Your task to perform on an android device: find snoozed emails in the gmail app Image 0: 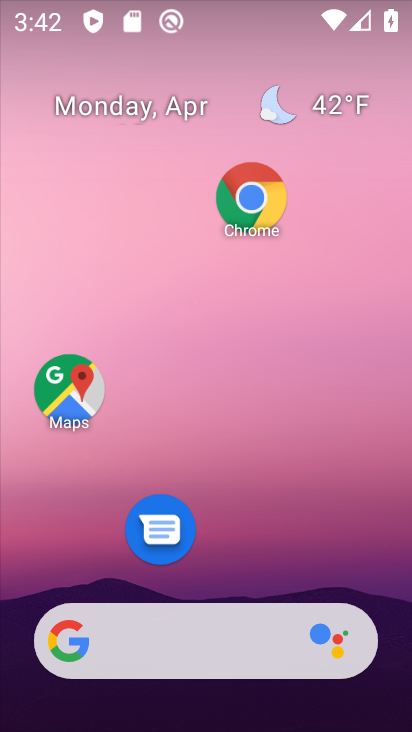
Step 0: drag from (232, 530) to (195, 220)
Your task to perform on an android device: find snoozed emails in the gmail app Image 1: 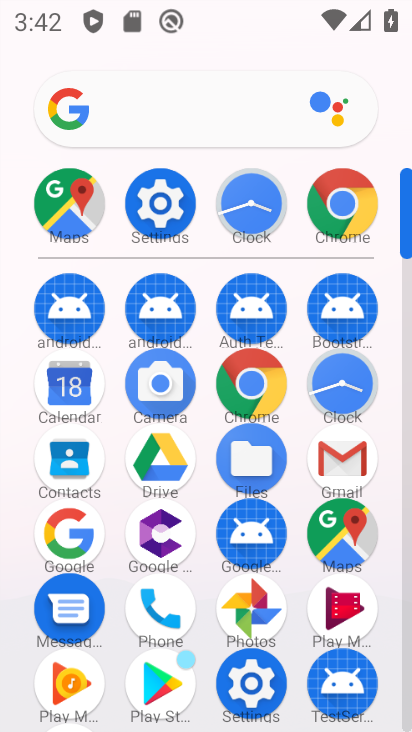
Step 1: click (331, 453)
Your task to perform on an android device: find snoozed emails in the gmail app Image 2: 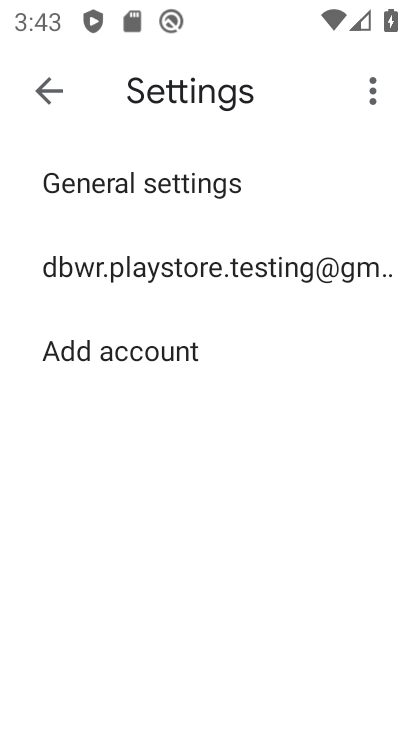
Step 2: click (37, 90)
Your task to perform on an android device: find snoozed emails in the gmail app Image 3: 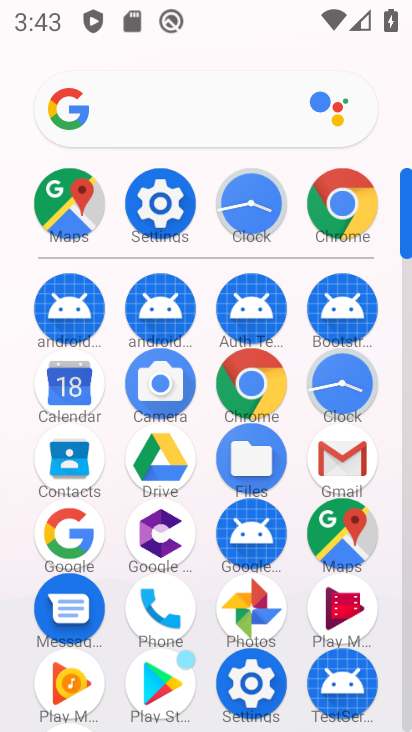
Step 3: click (321, 454)
Your task to perform on an android device: find snoozed emails in the gmail app Image 4: 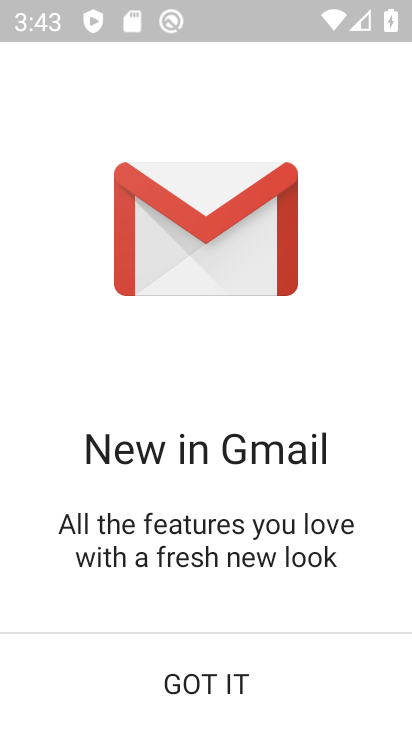
Step 4: click (235, 673)
Your task to perform on an android device: find snoozed emails in the gmail app Image 5: 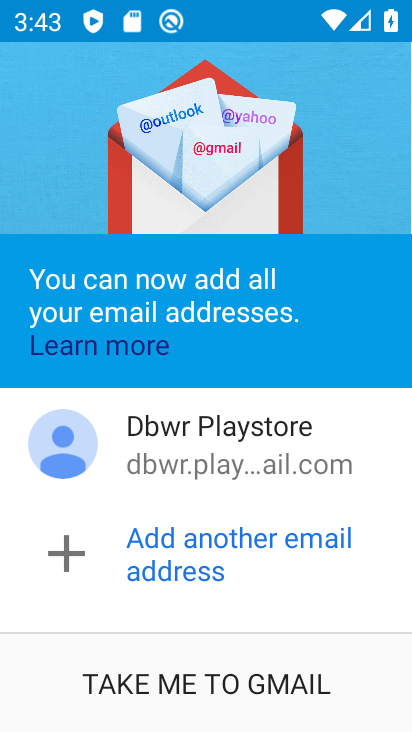
Step 5: click (235, 668)
Your task to perform on an android device: find snoozed emails in the gmail app Image 6: 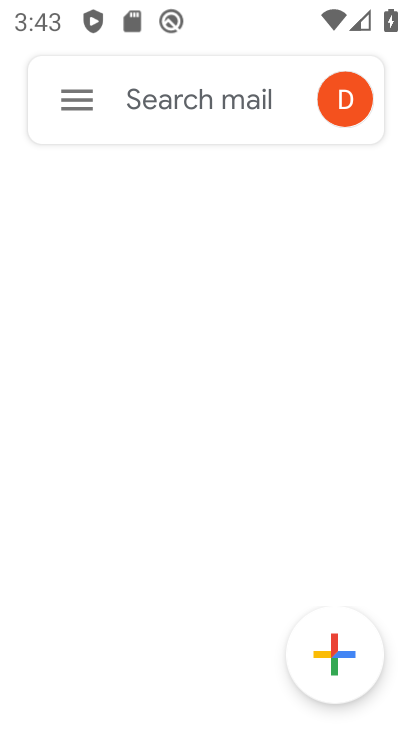
Step 6: click (81, 107)
Your task to perform on an android device: find snoozed emails in the gmail app Image 7: 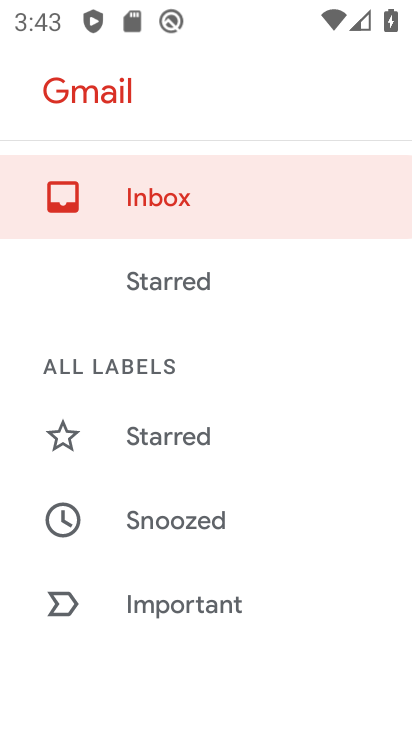
Step 7: click (230, 517)
Your task to perform on an android device: find snoozed emails in the gmail app Image 8: 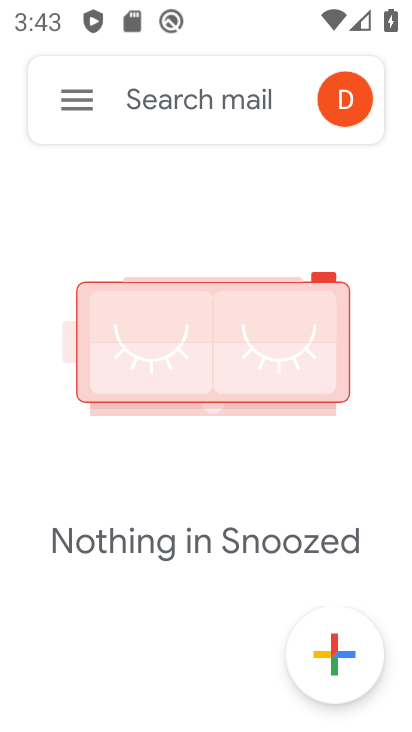
Step 8: task complete